Your task to perform on an android device: refresh tabs in the chrome app Image 0: 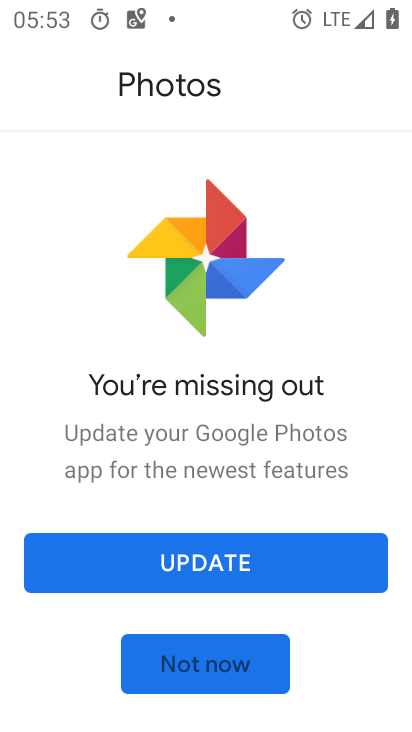
Step 0: press home button
Your task to perform on an android device: refresh tabs in the chrome app Image 1: 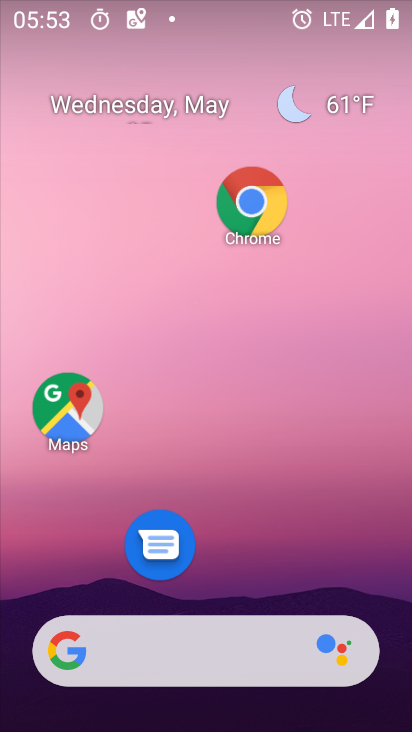
Step 1: click (254, 198)
Your task to perform on an android device: refresh tabs in the chrome app Image 2: 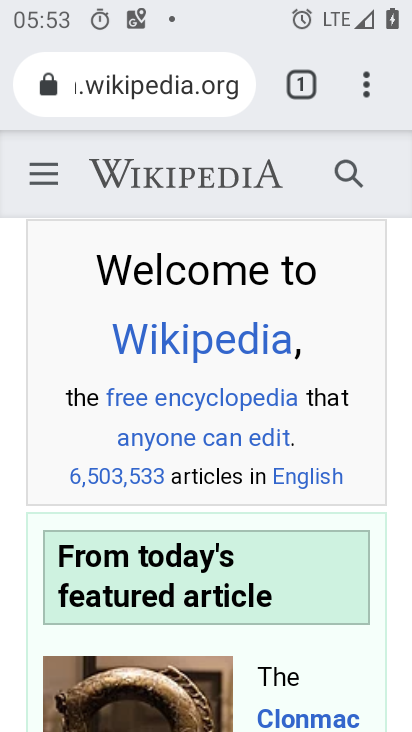
Step 2: click (371, 79)
Your task to perform on an android device: refresh tabs in the chrome app Image 3: 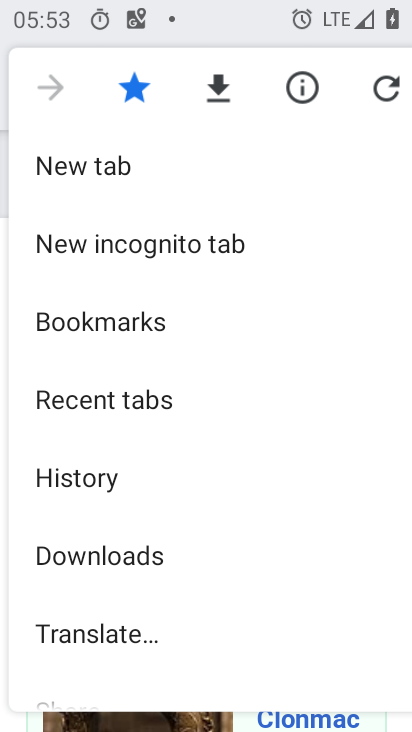
Step 3: drag from (87, 646) to (88, 334)
Your task to perform on an android device: refresh tabs in the chrome app Image 4: 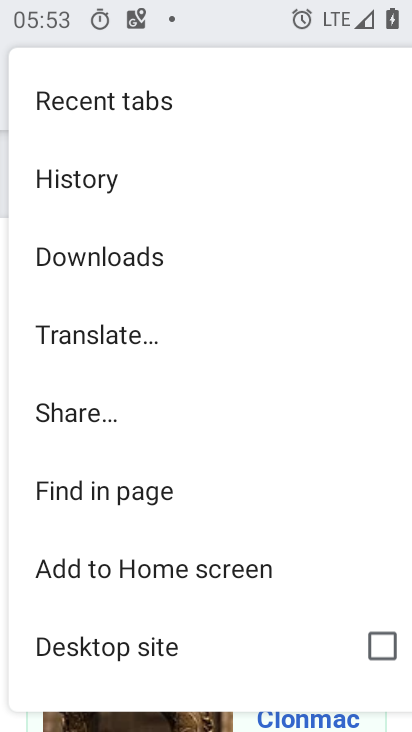
Step 4: drag from (222, 130) to (179, 554)
Your task to perform on an android device: refresh tabs in the chrome app Image 5: 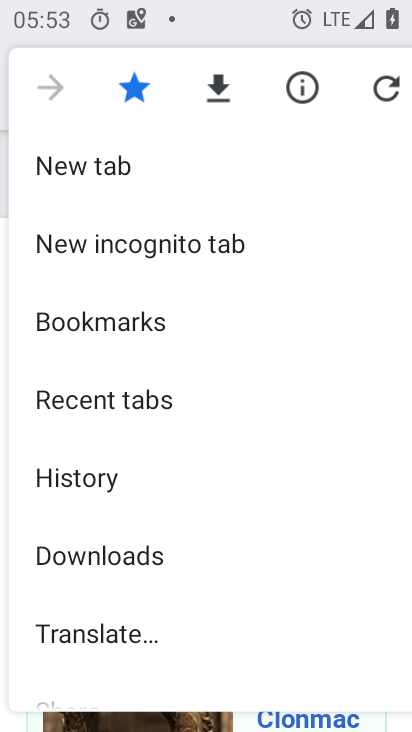
Step 5: click (383, 86)
Your task to perform on an android device: refresh tabs in the chrome app Image 6: 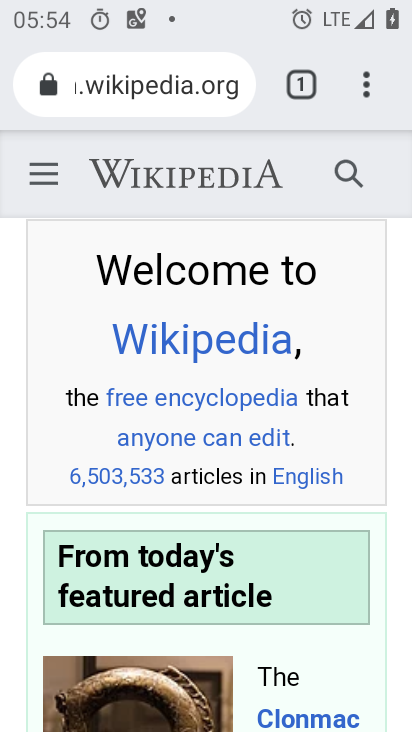
Step 6: click (362, 78)
Your task to perform on an android device: refresh tabs in the chrome app Image 7: 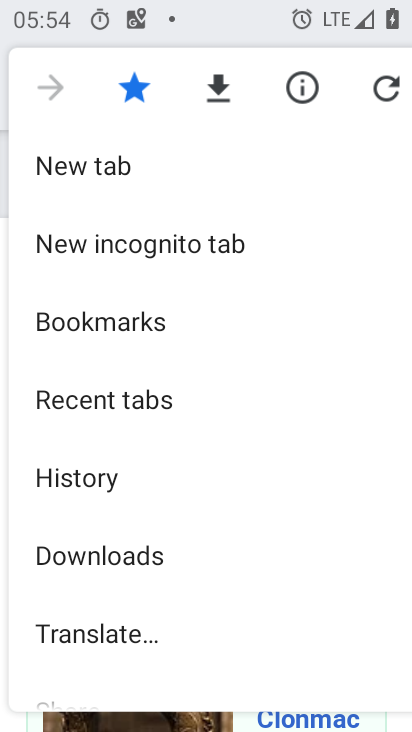
Step 7: click (379, 84)
Your task to perform on an android device: refresh tabs in the chrome app Image 8: 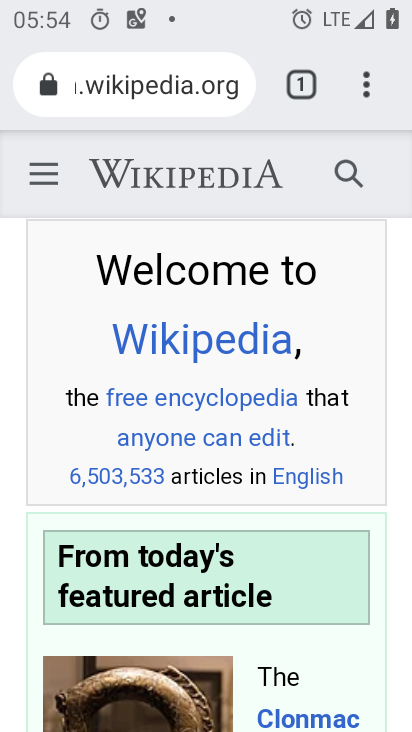
Step 8: task complete